Your task to perform on an android device: Go to calendar. Show me events next week Image 0: 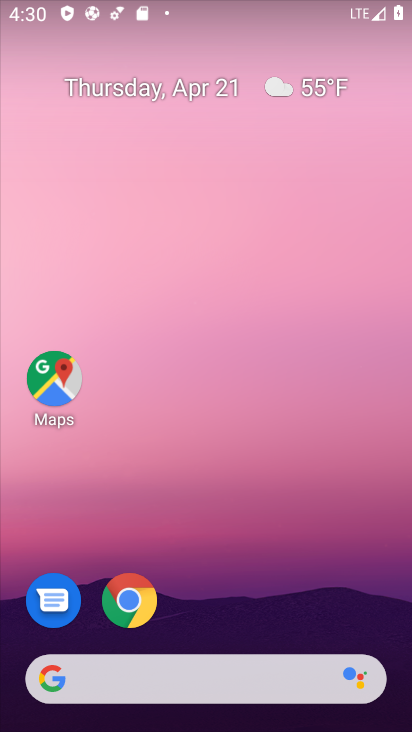
Step 0: drag from (309, 591) to (318, 80)
Your task to perform on an android device: Go to calendar. Show me events next week Image 1: 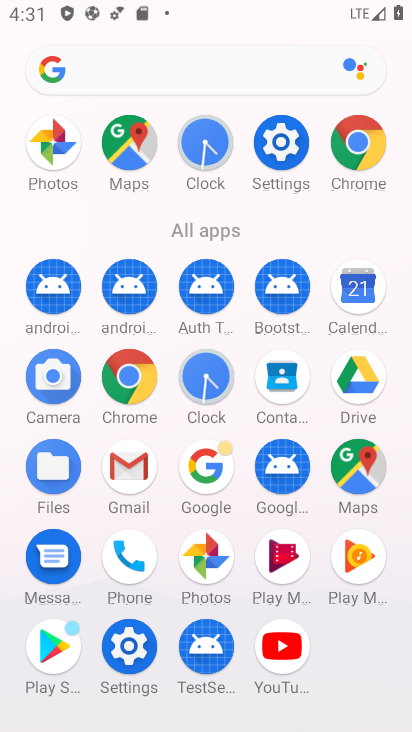
Step 1: click (361, 303)
Your task to perform on an android device: Go to calendar. Show me events next week Image 2: 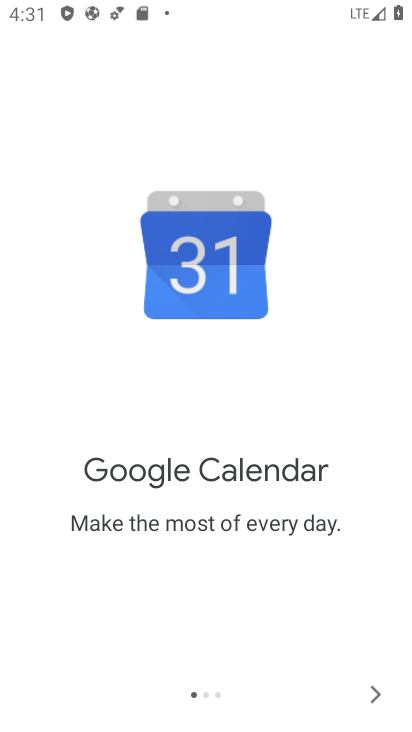
Step 2: click (391, 695)
Your task to perform on an android device: Go to calendar. Show me events next week Image 3: 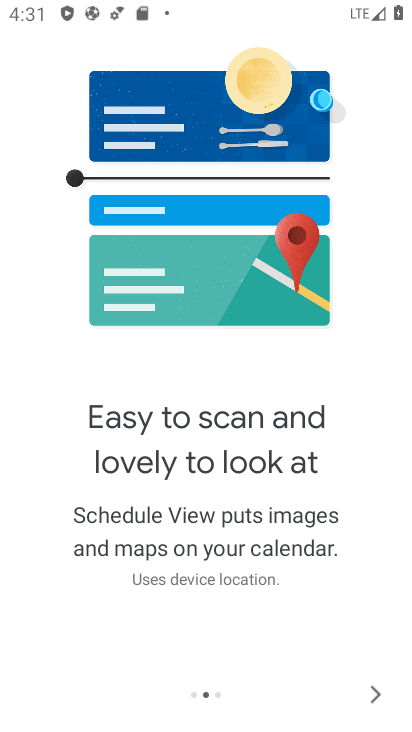
Step 3: click (390, 683)
Your task to perform on an android device: Go to calendar. Show me events next week Image 4: 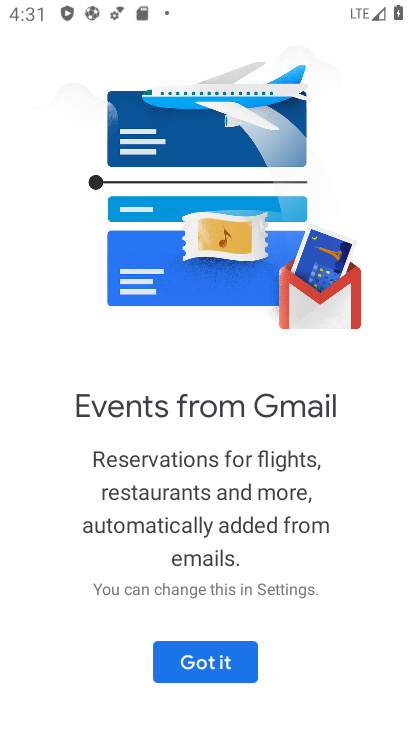
Step 4: click (257, 660)
Your task to perform on an android device: Go to calendar. Show me events next week Image 5: 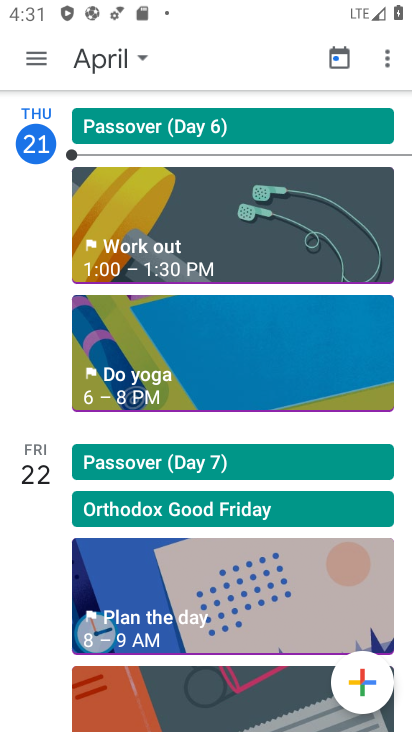
Step 5: click (96, 73)
Your task to perform on an android device: Go to calendar. Show me events next week Image 6: 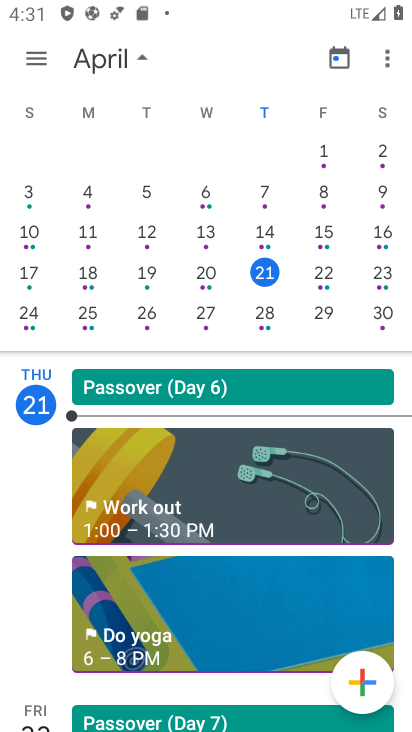
Step 6: click (29, 316)
Your task to perform on an android device: Go to calendar. Show me events next week Image 7: 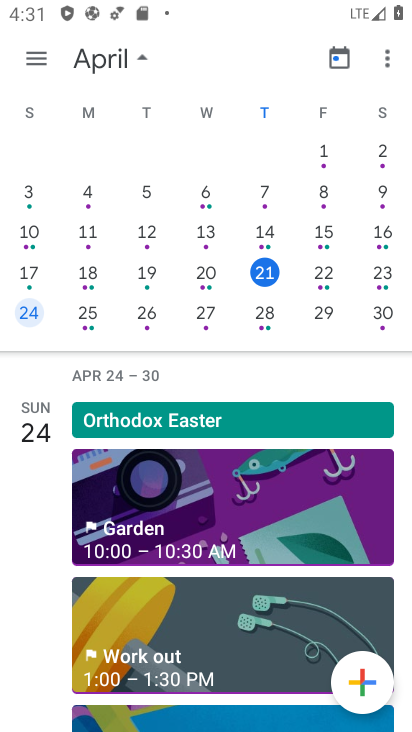
Step 7: click (87, 310)
Your task to perform on an android device: Go to calendar. Show me events next week Image 8: 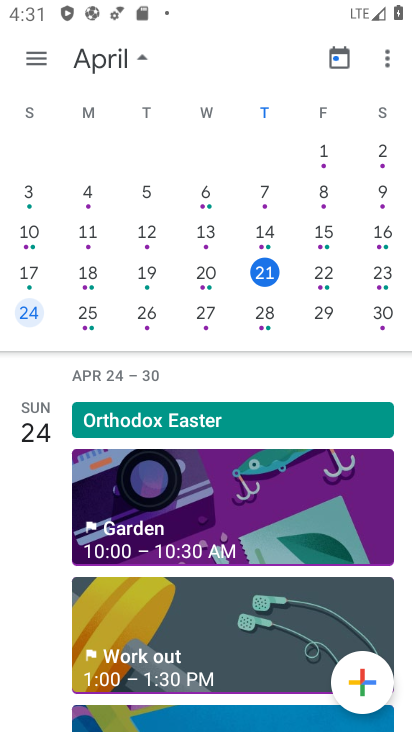
Step 8: click (90, 313)
Your task to perform on an android device: Go to calendar. Show me events next week Image 9: 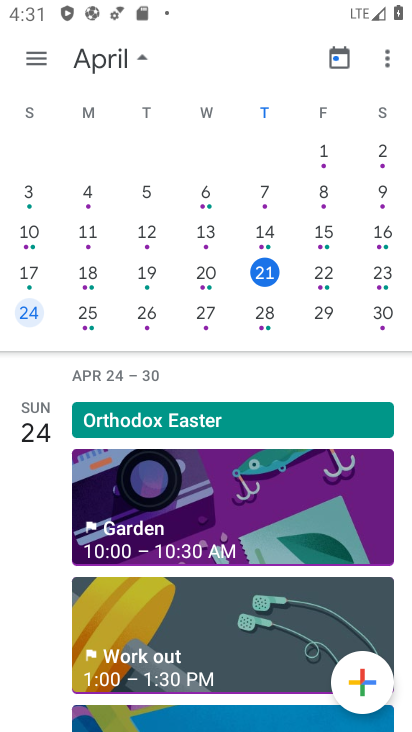
Step 9: click (90, 313)
Your task to perform on an android device: Go to calendar. Show me events next week Image 10: 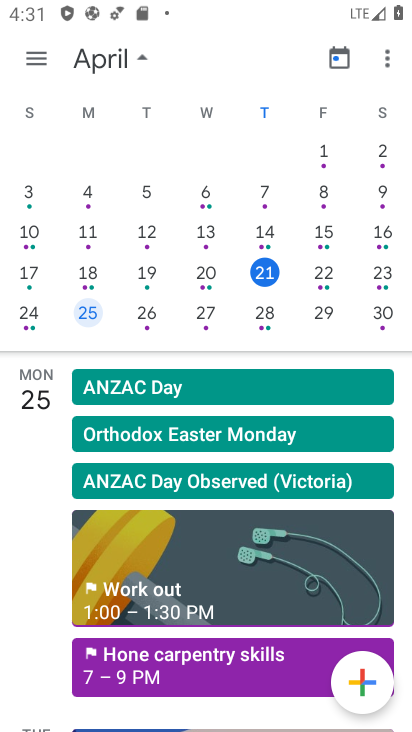
Step 10: click (146, 315)
Your task to perform on an android device: Go to calendar. Show me events next week Image 11: 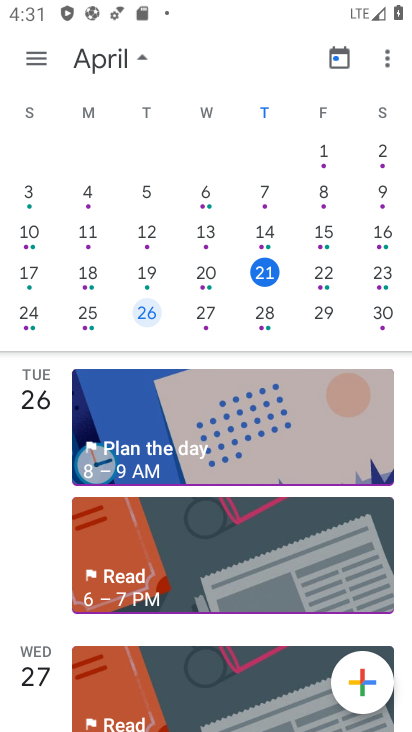
Step 11: click (206, 315)
Your task to perform on an android device: Go to calendar. Show me events next week Image 12: 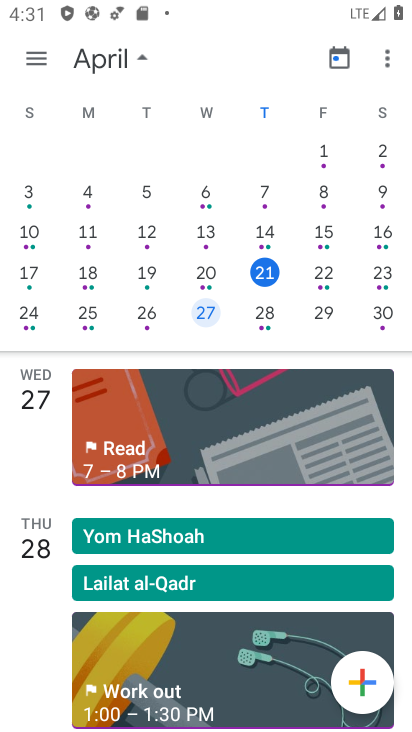
Step 12: click (271, 324)
Your task to perform on an android device: Go to calendar. Show me events next week Image 13: 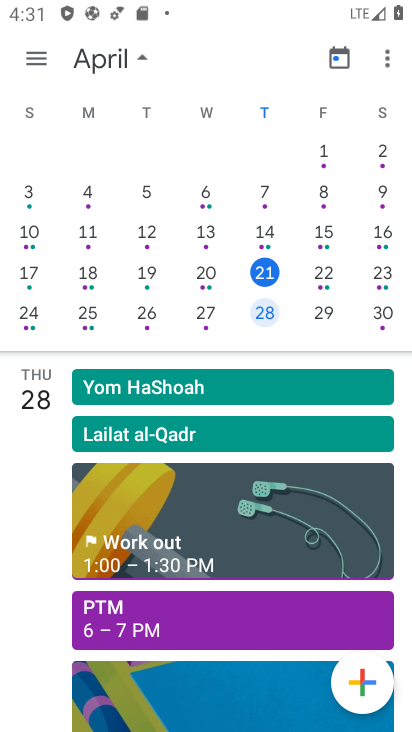
Step 13: click (335, 320)
Your task to perform on an android device: Go to calendar. Show me events next week Image 14: 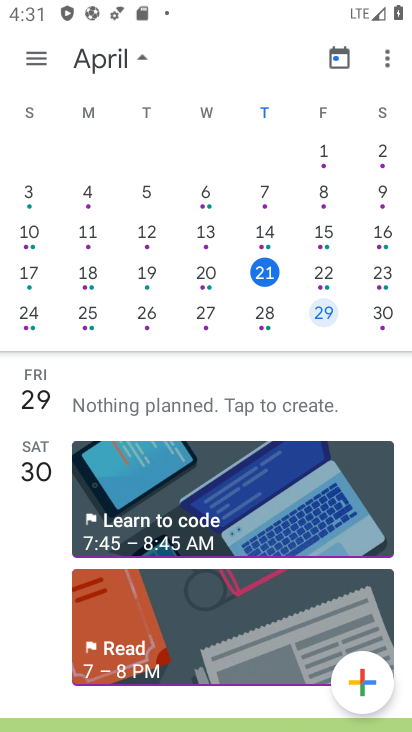
Step 14: click (375, 319)
Your task to perform on an android device: Go to calendar. Show me events next week Image 15: 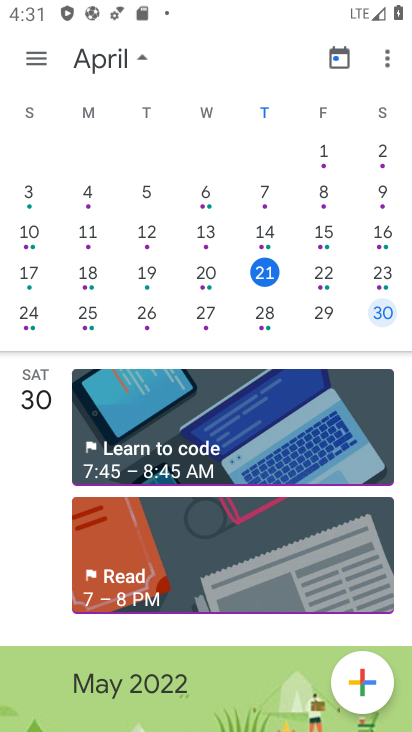
Step 15: task complete